Your task to perform on an android device: Clear the cart on bestbuy. Image 0: 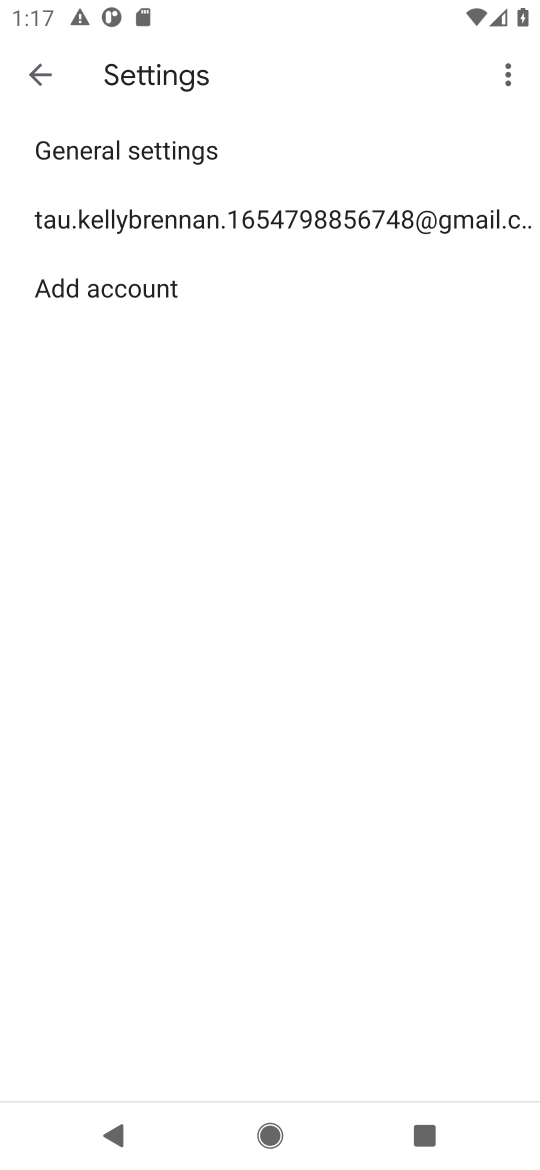
Step 0: press home button
Your task to perform on an android device: Clear the cart on bestbuy. Image 1: 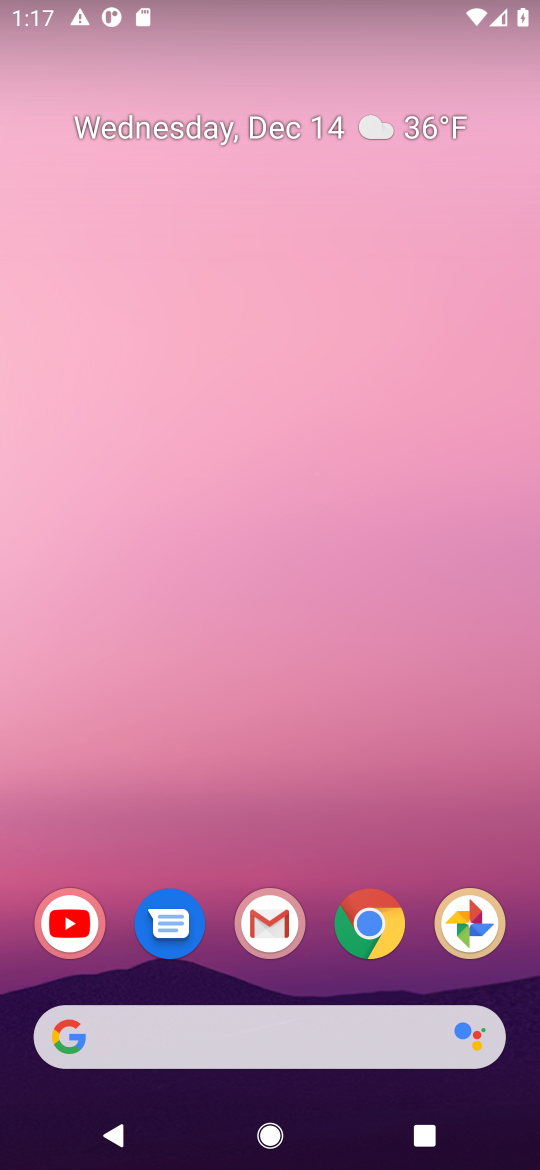
Step 1: click (297, 1034)
Your task to perform on an android device: Clear the cart on bestbuy. Image 2: 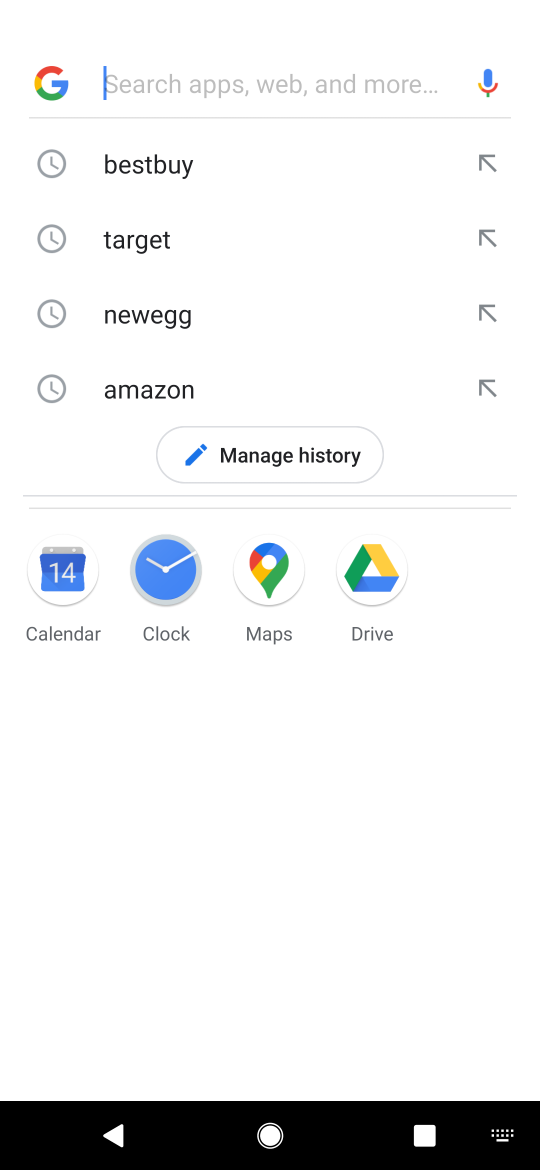
Step 2: type "bestbuy"
Your task to perform on an android device: Clear the cart on bestbuy. Image 3: 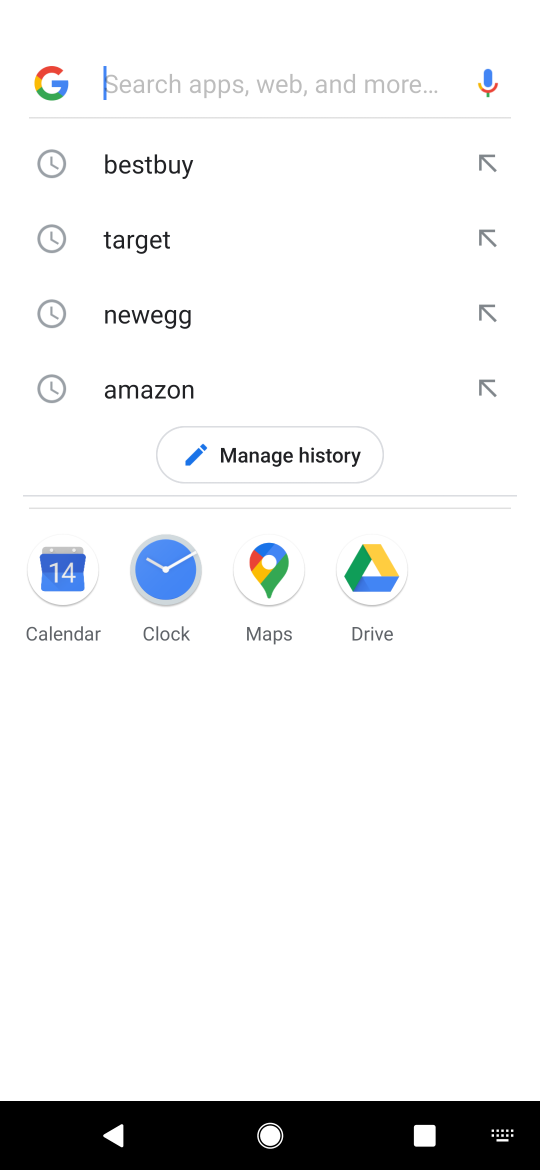
Step 3: click (132, 187)
Your task to perform on an android device: Clear the cart on bestbuy. Image 4: 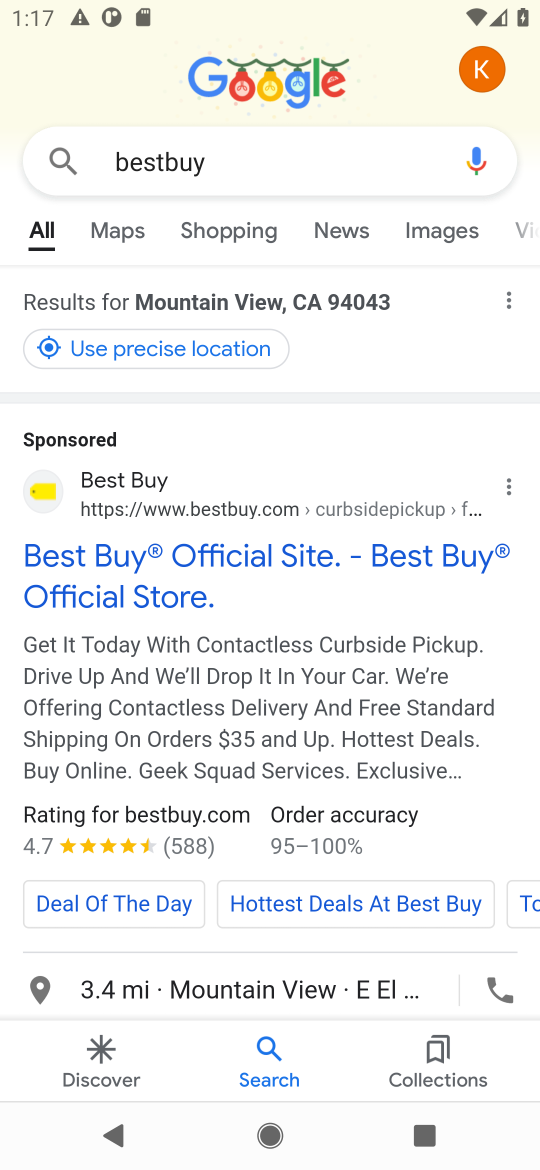
Step 4: click (321, 553)
Your task to perform on an android device: Clear the cart on bestbuy. Image 5: 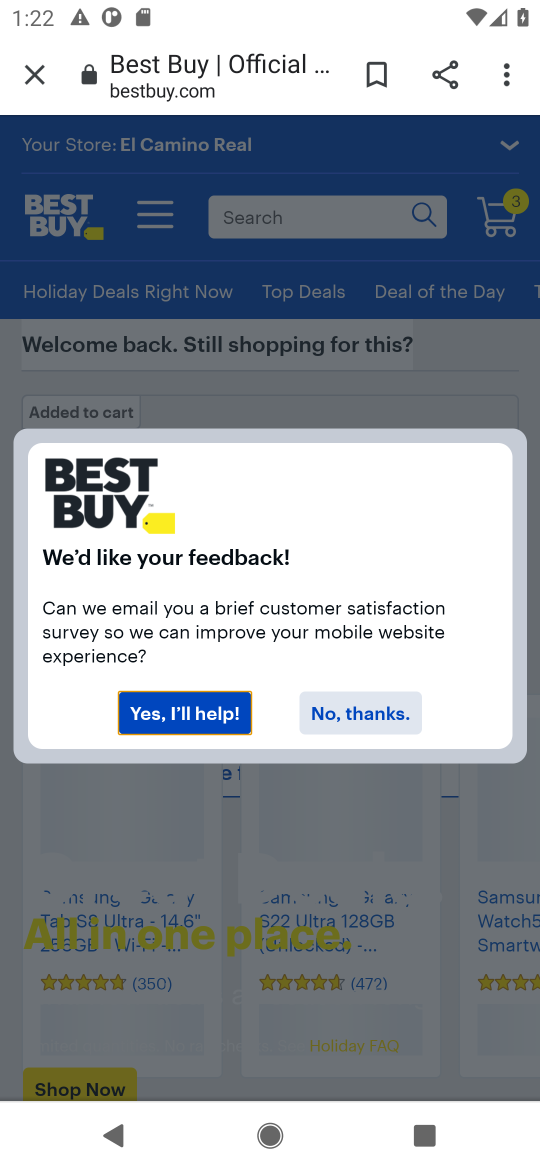
Step 5: task complete